Your task to perform on an android device: Open accessibility settings Image 0: 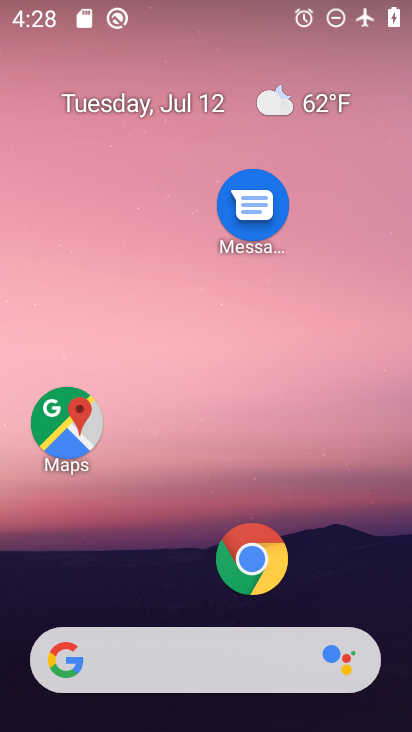
Step 0: drag from (117, 503) to (249, 15)
Your task to perform on an android device: Open accessibility settings Image 1: 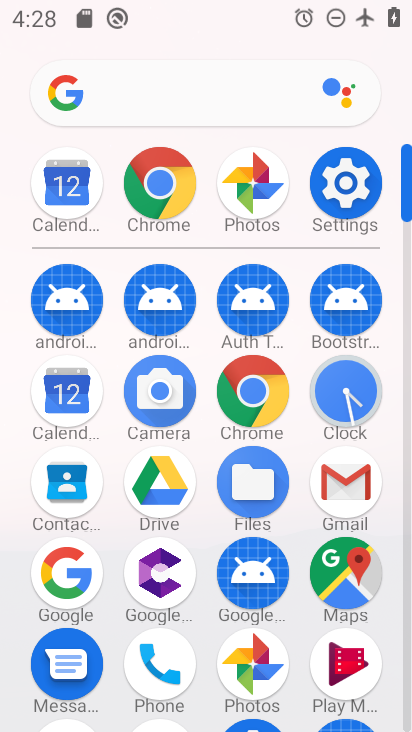
Step 1: click (348, 177)
Your task to perform on an android device: Open accessibility settings Image 2: 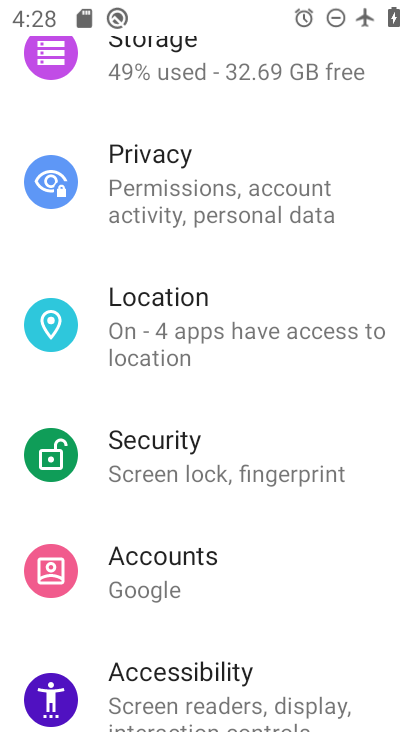
Step 2: click (215, 663)
Your task to perform on an android device: Open accessibility settings Image 3: 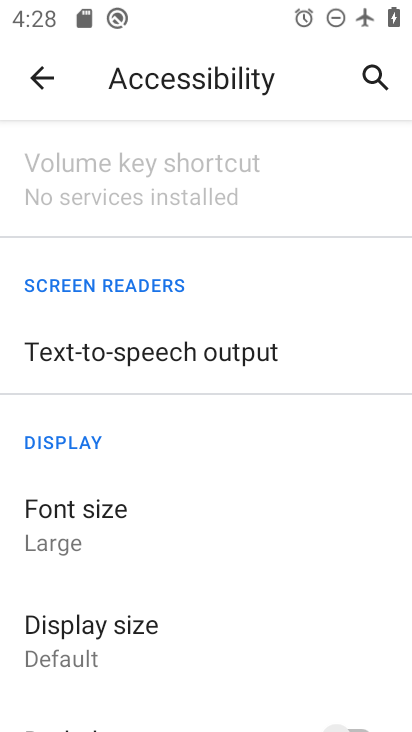
Step 3: task complete